Your task to perform on an android device: turn notification dots on Image 0: 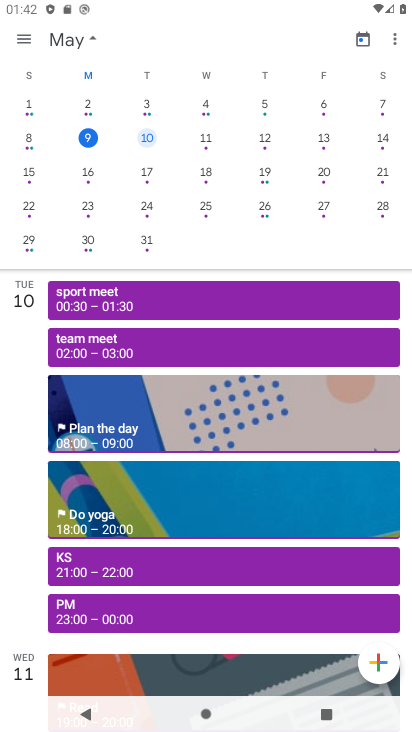
Step 0: press home button
Your task to perform on an android device: turn notification dots on Image 1: 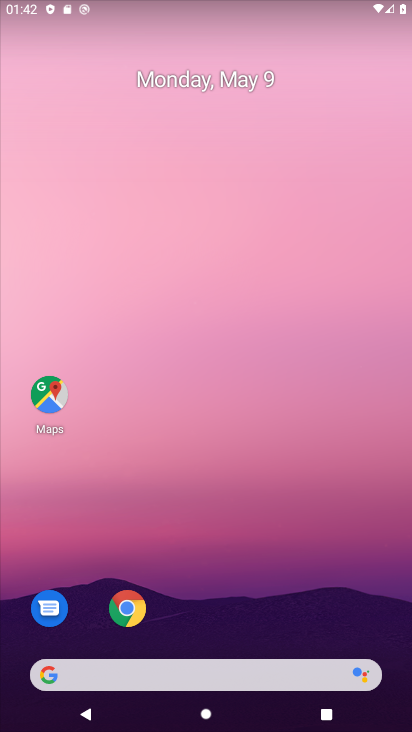
Step 1: drag from (247, 628) to (409, 73)
Your task to perform on an android device: turn notification dots on Image 2: 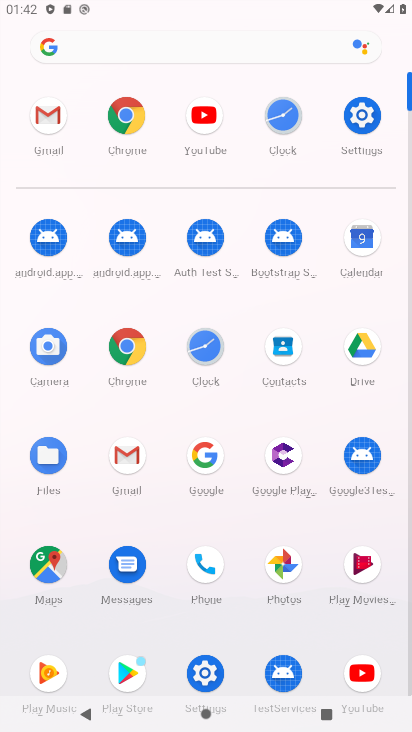
Step 2: click (374, 131)
Your task to perform on an android device: turn notification dots on Image 3: 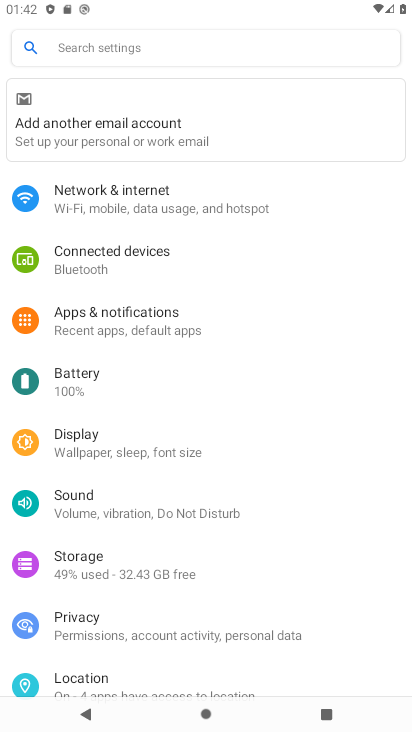
Step 3: drag from (122, 641) to (193, 254)
Your task to perform on an android device: turn notification dots on Image 4: 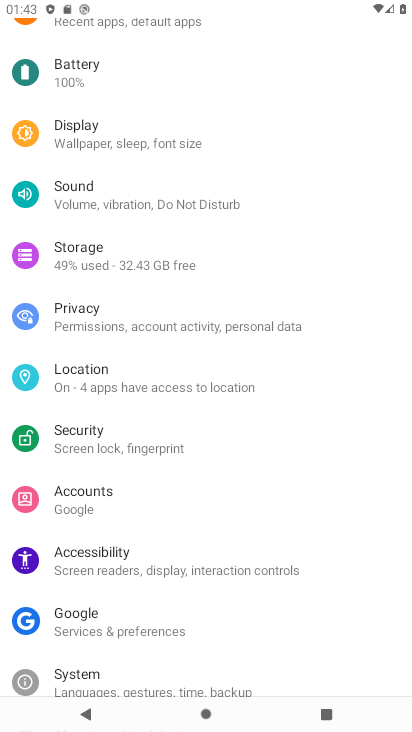
Step 4: drag from (178, 217) to (116, 621)
Your task to perform on an android device: turn notification dots on Image 5: 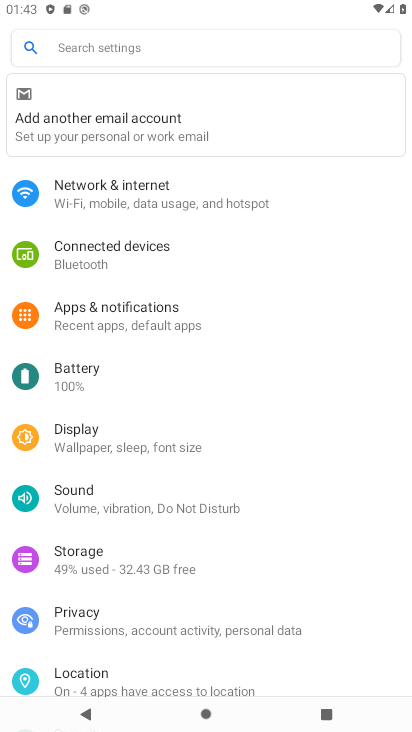
Step 5: click (145, 319)
Your task to perform on an android device: turn notification dots on Image 6: 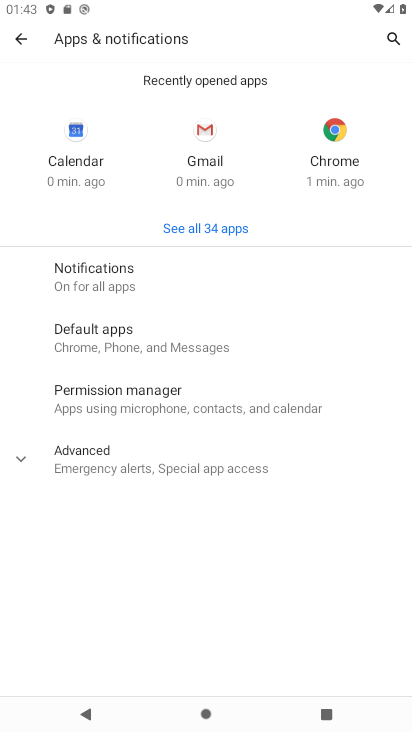
Step 6: click (139, 286)
Your task to perform on an android device: turn notification dots on Image 7: 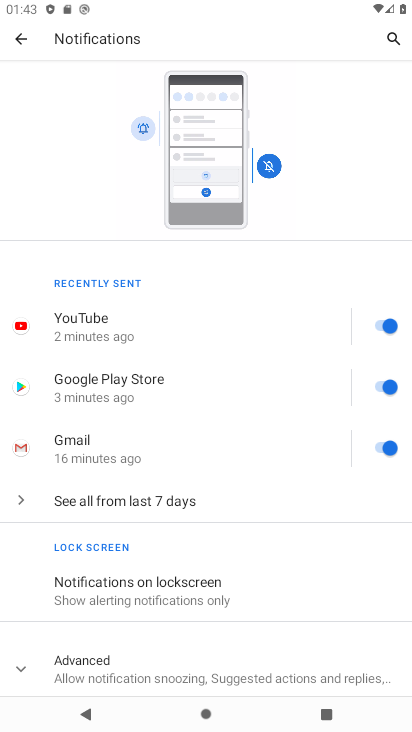
Step 7: click (139, 676)
Your task to perform on an android device: turn notification dots on Image 8: 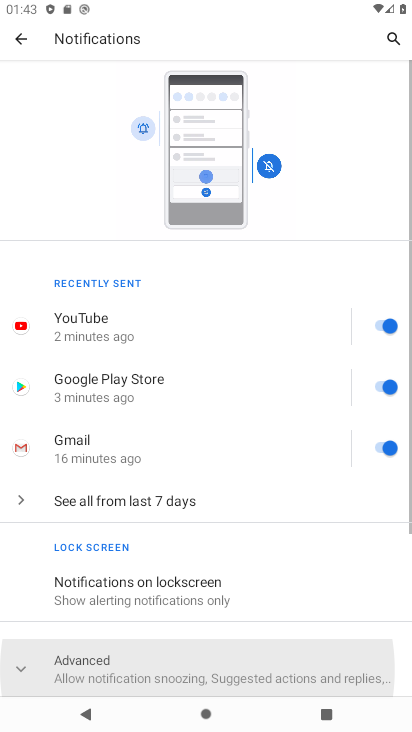
Step 8: task complete